Your task to perform on an android device: What is the news today? Image 0: 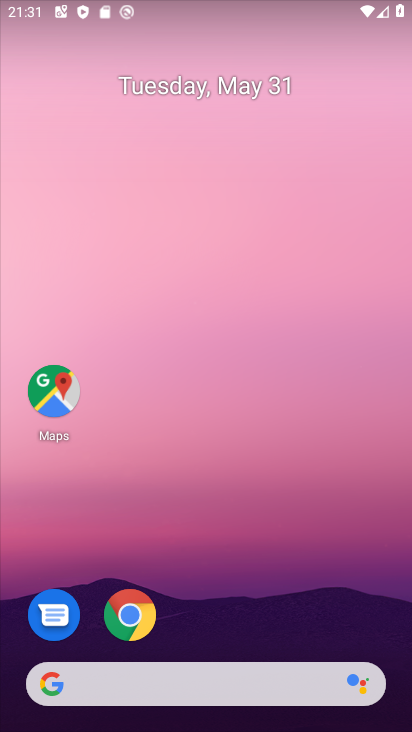
Step 0: click (272, 681)
Your task to perform on an android device: What is the news today? Image 1: 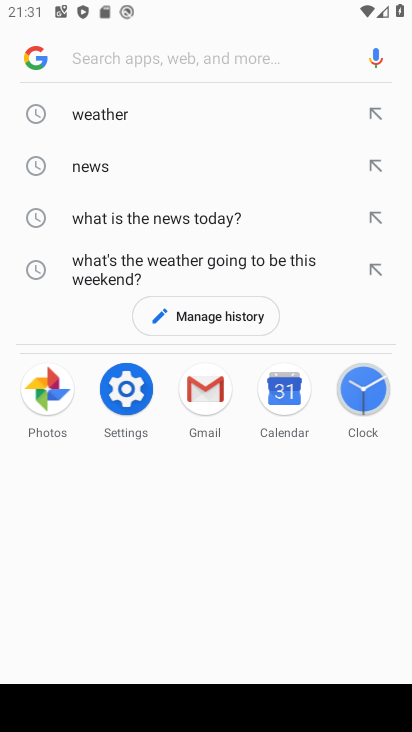
Step 1: click (189, 234)
Your task to perform on an android device: What is the news today? Image 2: 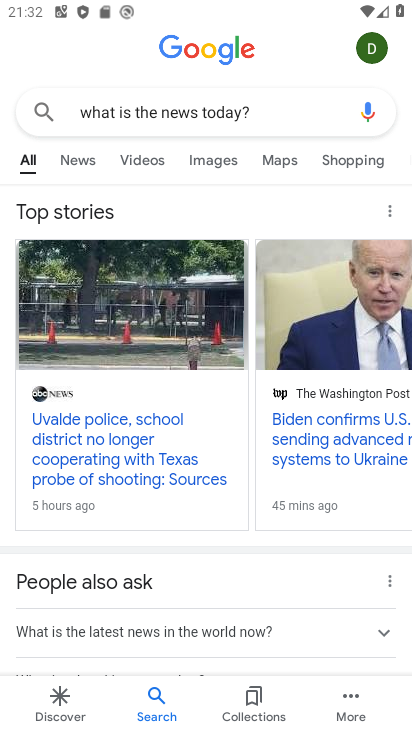
Step 2: task complete